Your task to perform on an android device: Open Google Chrome and click the shortcut for Amazon.com Image 0: 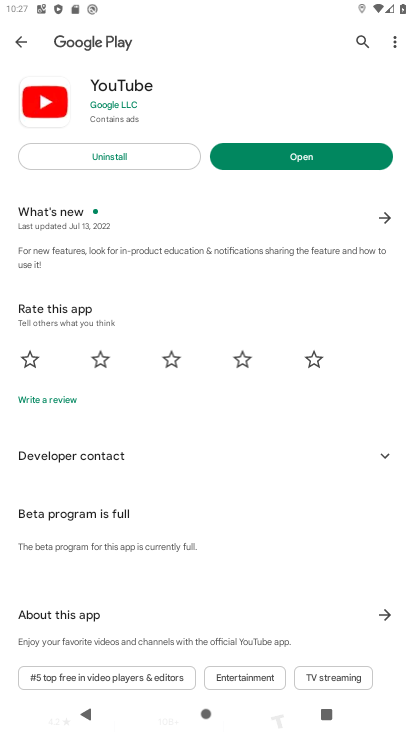
Step 0: press home button
Your task to perform on an android device: Open Google Chrome and click the shortcut for Amazon.com Image 1: 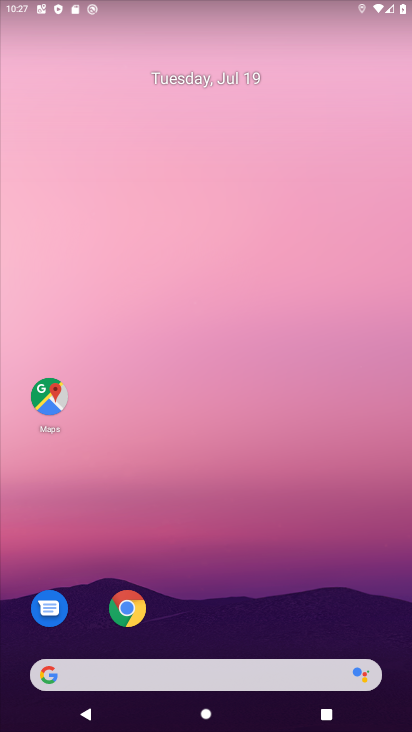
Step 1: drag from (275, 547) to (297, 158)
Your task to perform on an android device: Open Google Chrome and click the shortcut for Amazon.com Image 2: 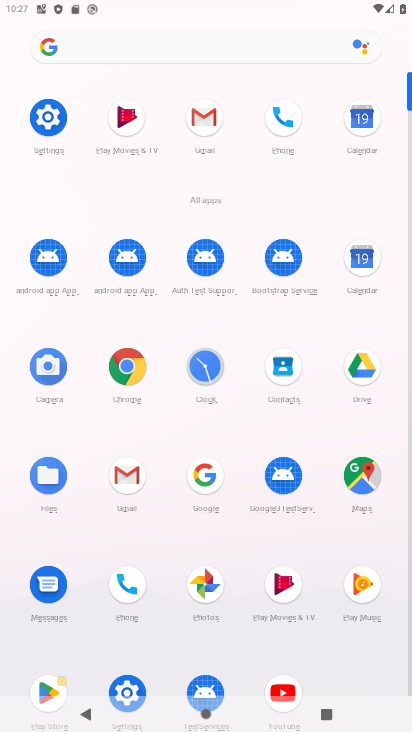
Step 2: click (114, 378)
Your task to perform on an android device: Open Google Chrome and click the shortcut for Amazon.com Image 3: 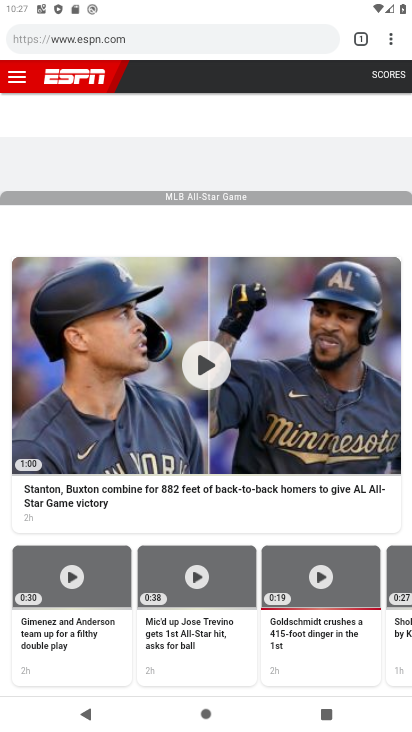
Step 3: click (355, 39)
Your task to perform on an android device: Open Google Chrome and click the shortcut for Amazon.com Image 4: 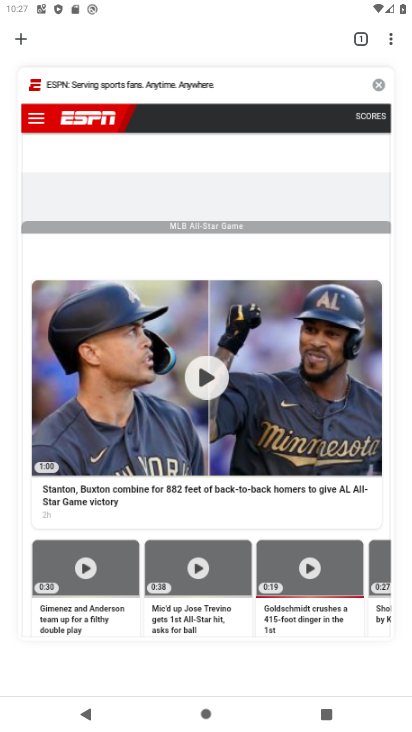
Step 4: click (24, 37)
Your task to perform on an android device: Open Google Chrome and click the shortcut for Amazon.com Image 5: 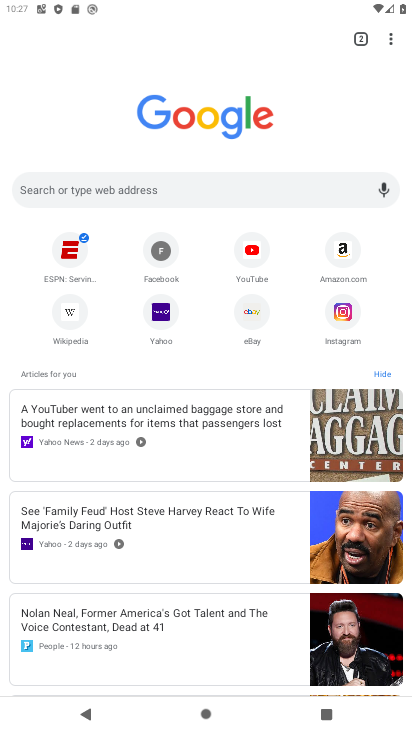
Step 5: click (333, 253)
Your task to perform on an android device: Open Google Chrome and click the shortcut for Amazon.com Image 6: 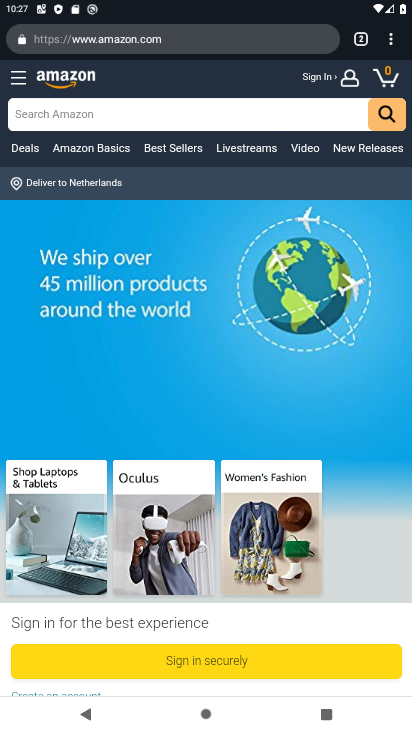
Step 6: task complete